Your task to perform on an android device: change the upload size in google photos Image 0: 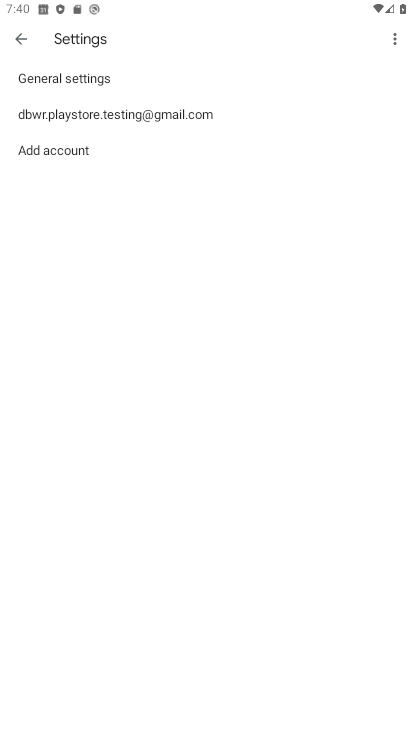
Step 0: press home button
Your task to perform on an android device: change the upload size in google photos Image 1: 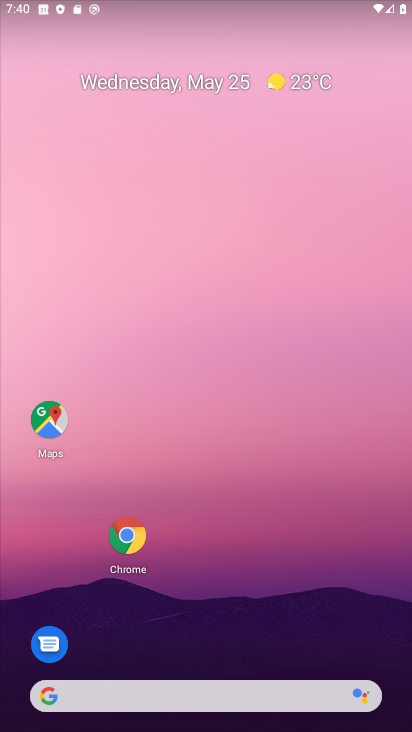
Step 1: drag from (194, 687) to (7, 325)
Your task to perform on an android device: change the upload size in google photos Image 2: 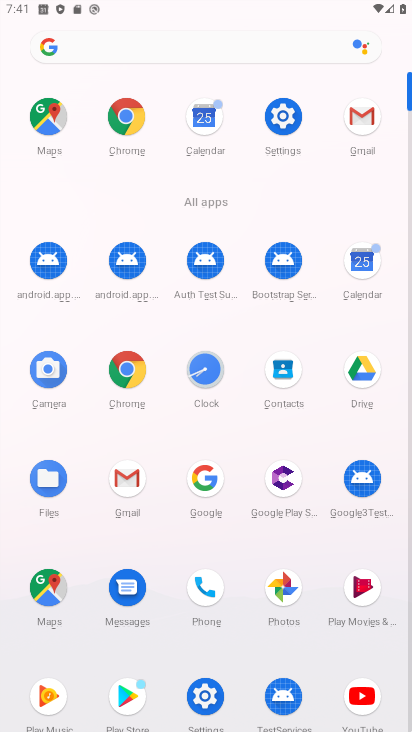
Step 2: click (290, 588)
Your task to perform on an android device: change the upload size in google photos Image 3: 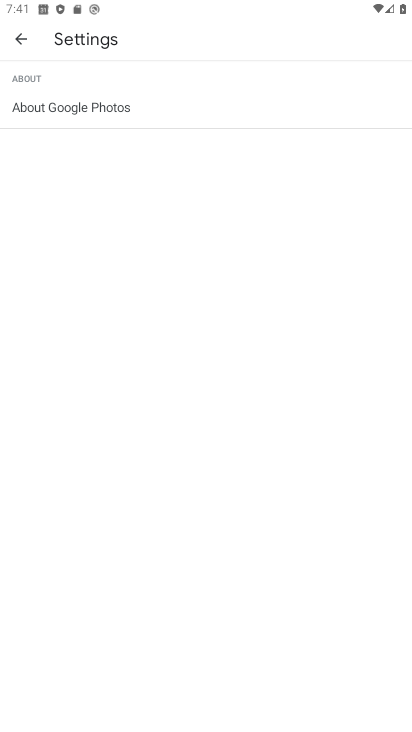
Step 3: click (19, 50)
Your task to perform on an android device: change the upload size in google photos Image 4: 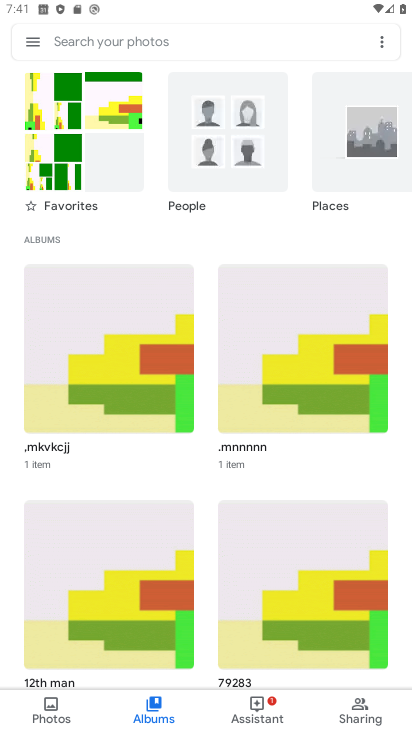
Step 4: click (32, 46)
Your task to perform on an android device: change the upload size in google photos Image 5: 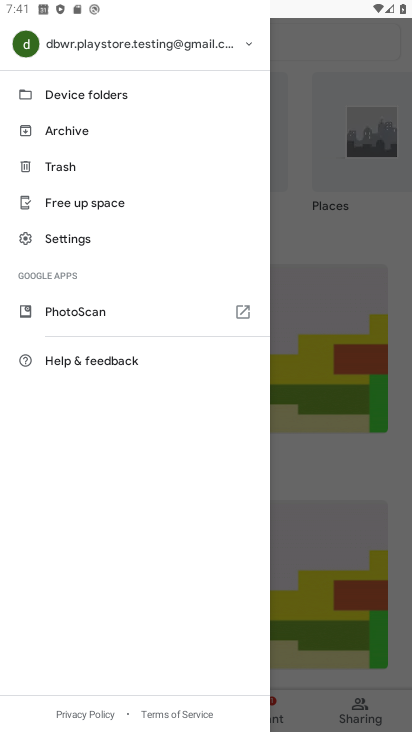
Step 5: click (75, 237)
Your task to perform on an android device: change the upload size in google photos Image 6: 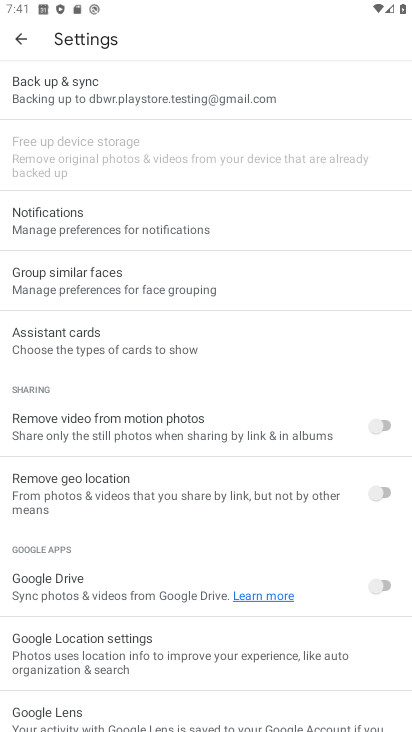
Step 6: click (115, 99)
Your task to perform on an android device: change the upload size in google photos Image 7: 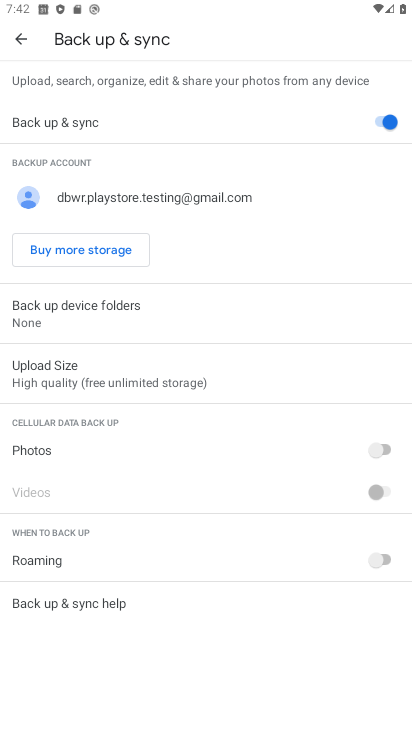
Step 7: click (93, 360)
Your task to perform on an android device: change the upload size in google photos Image 8: 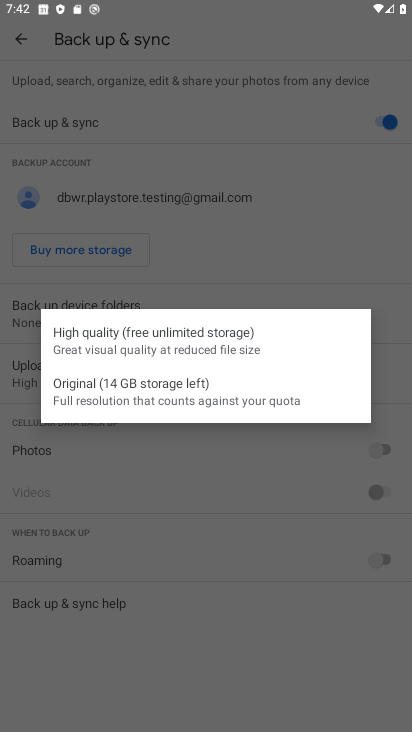
Step 8: click (115, 389)
Your task to perform on an android device: change the upload size in google photos Image 9: 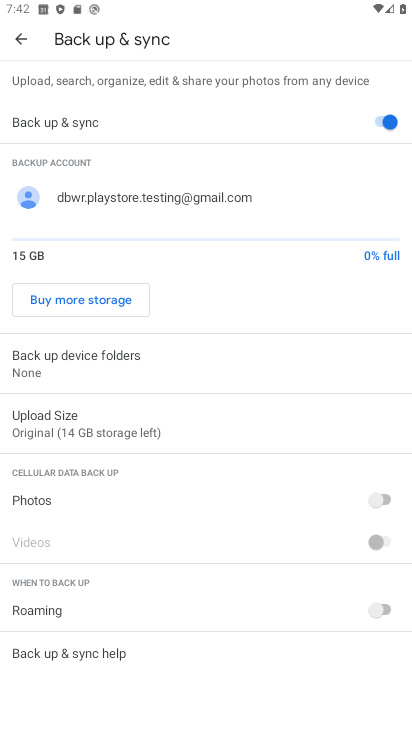
Step 9: task complete